Your task to perform on an android device: turn on data saver in the chrome app Image 0: 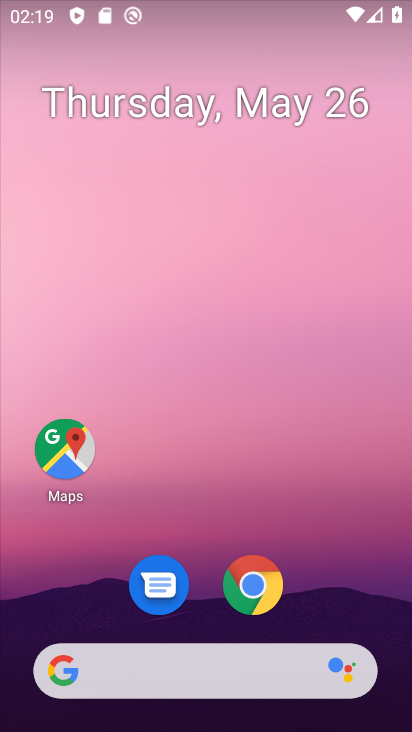
Step 0: click (265, 580)
Your task to perform on an android device: turn on data saver in the chrome app Image 1: 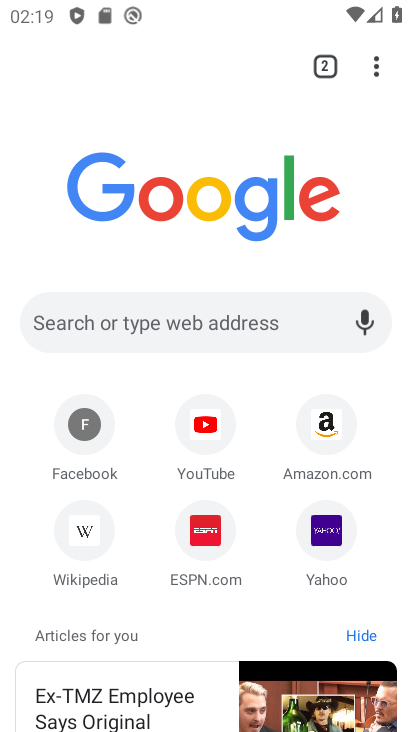
Step 1: click (374, 71)
Your task to perform on an android device: turn on data saver in the chrome app Image 2: 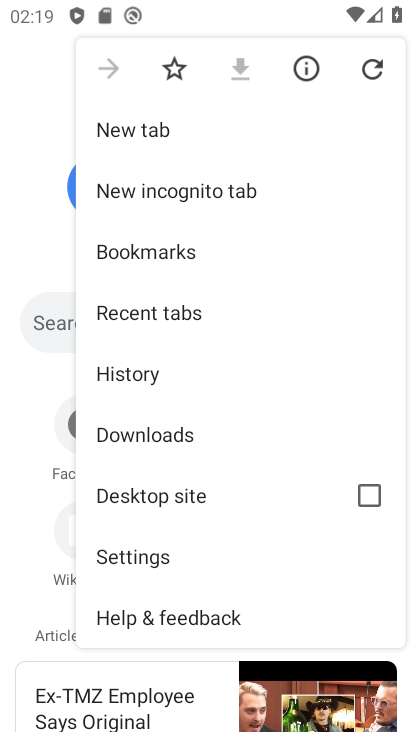
Step 2: click (180, 556)
Your task to perform on an android device: turn on data saver in the chrome app Image 3: 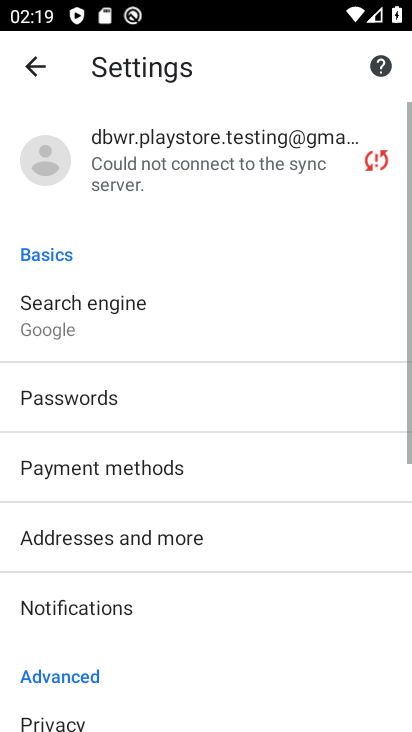
Step 3: drag from (181, 550) to (253, 119)
Your task to perform on an android device: turn on data saver in the chrome app Image 4: 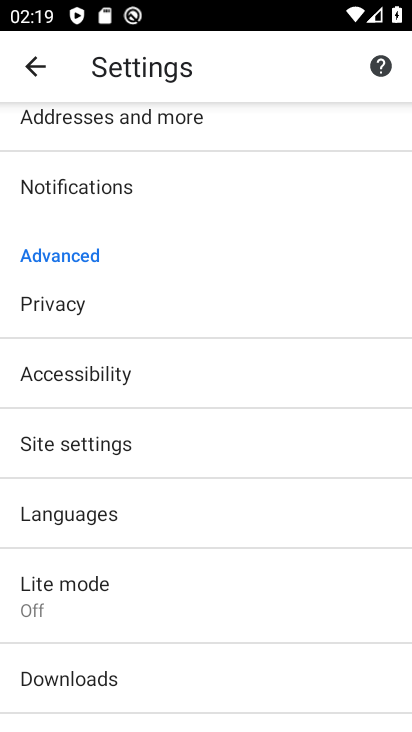
Step 4: click (144, 616)
Your task to perform on an android device: turn on data saver in the chrome app Image 5: 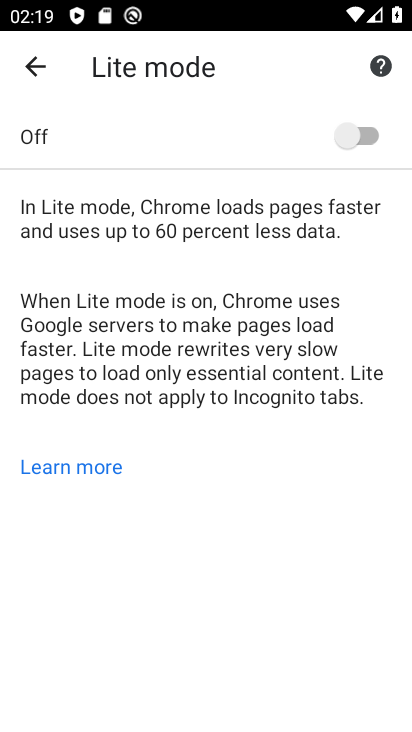
Step 5: click (364, 127)
Your task to perform on an android device: turn on data saver in the chrome app Image 6: 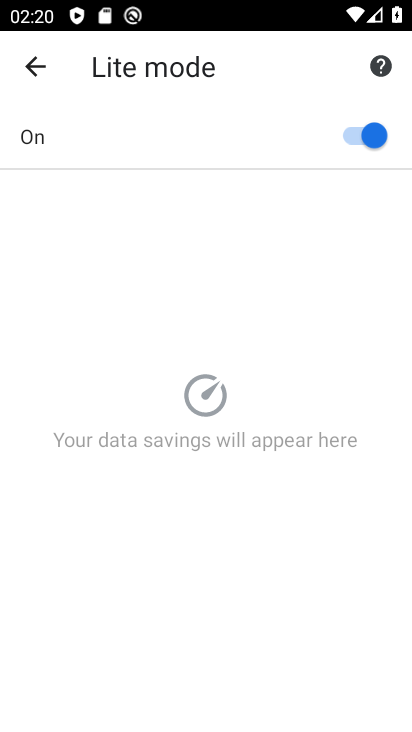
Step 6: task complete